Your task to perform on an android device: open app "Booking.com: Hotels and more" Image 0: 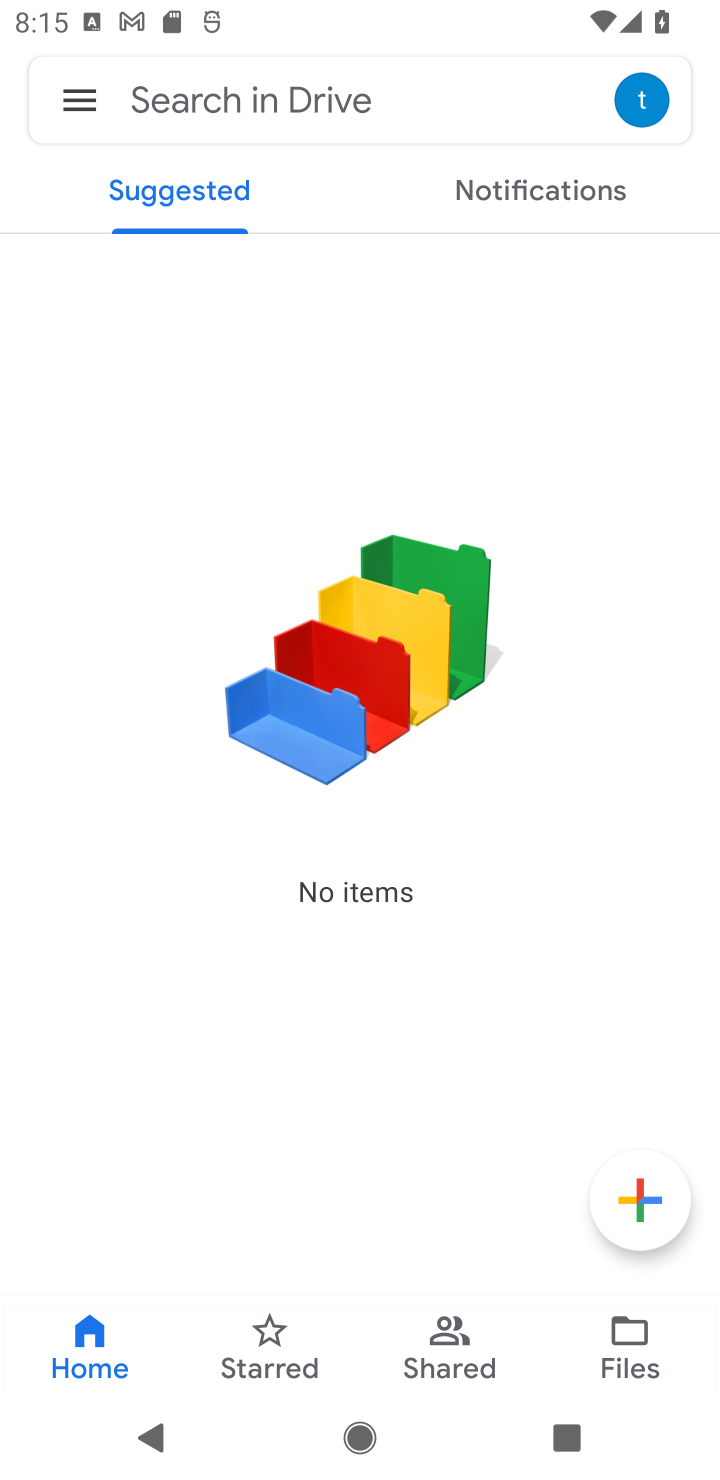
Step 0: press home button
Your task to perform on an android device: open app "Booking.com: Hotels and more" Image 1: 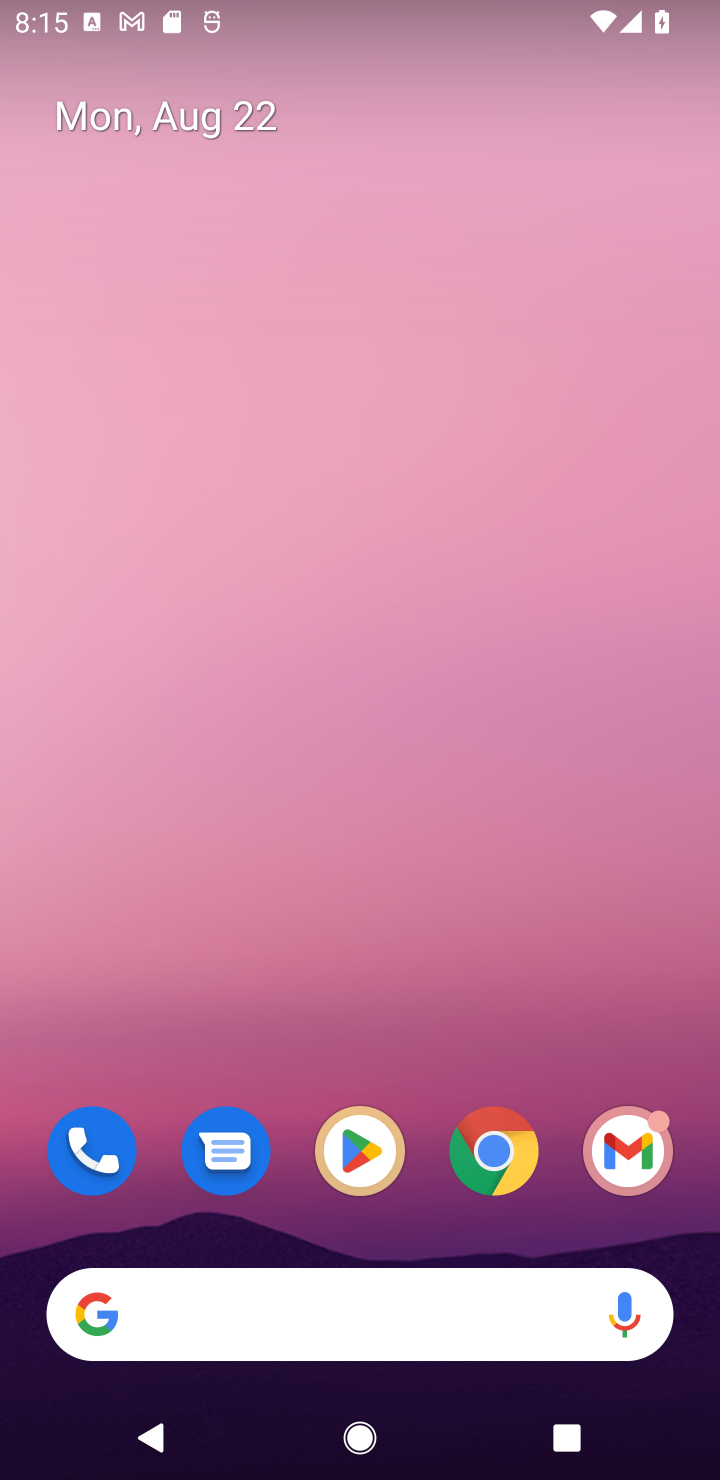
Step 1: click (348, 1147)
Your task to perform on an android device: open app "Booking.com: Hotels and more" Image 2: 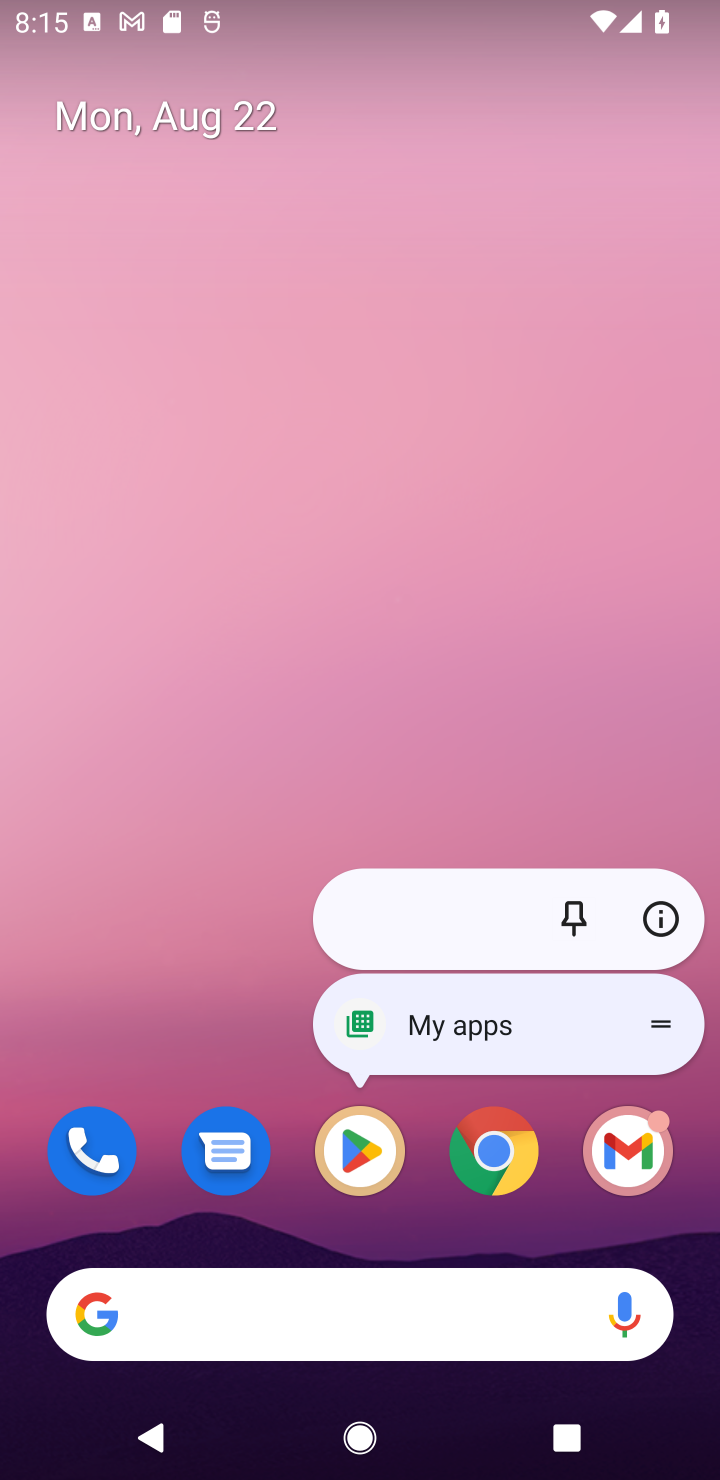
Step 2: click (348, 1156)
Your task to perform on an android device: open app "Booking.com: Hotels and more" Image 3: 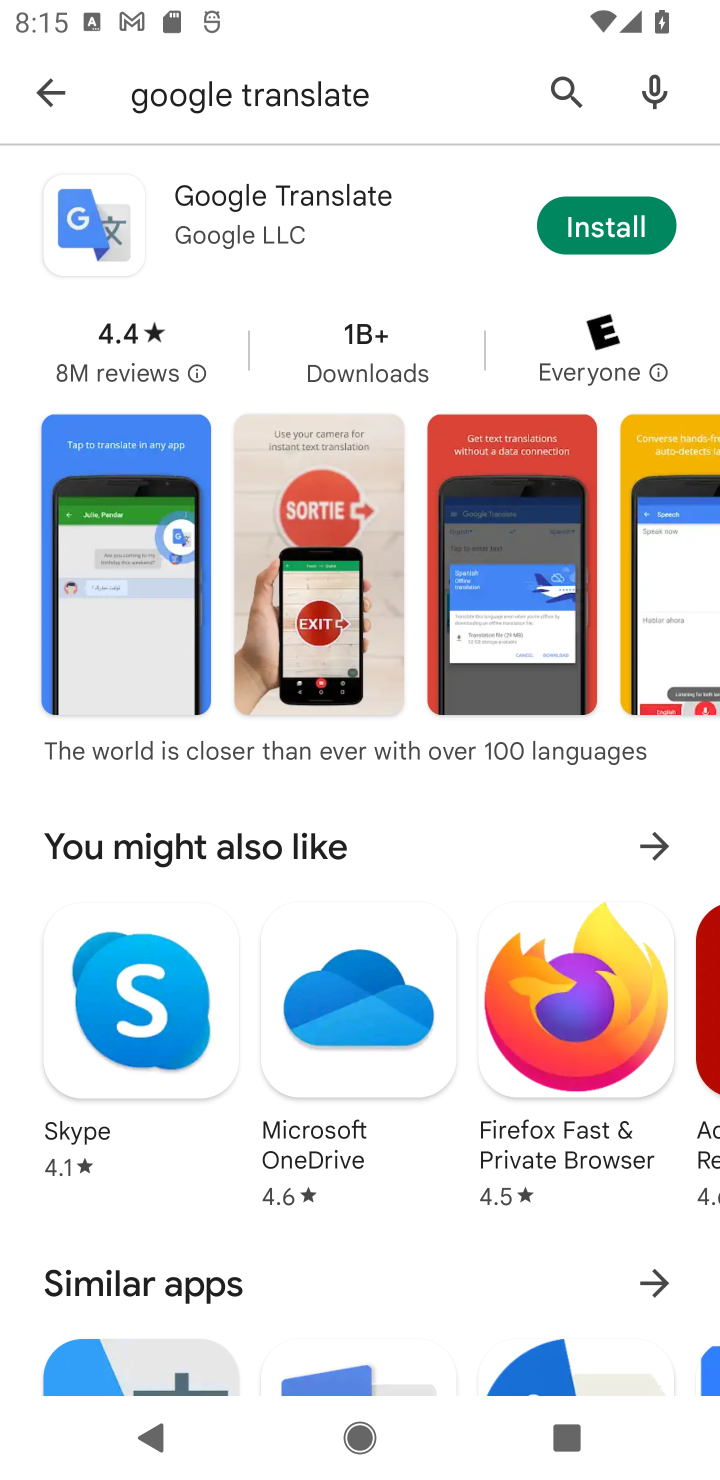
Step 3: click (559, 79)
Your task to perform on an android device: open app "Booking.com: Hotels and more" Image 4: 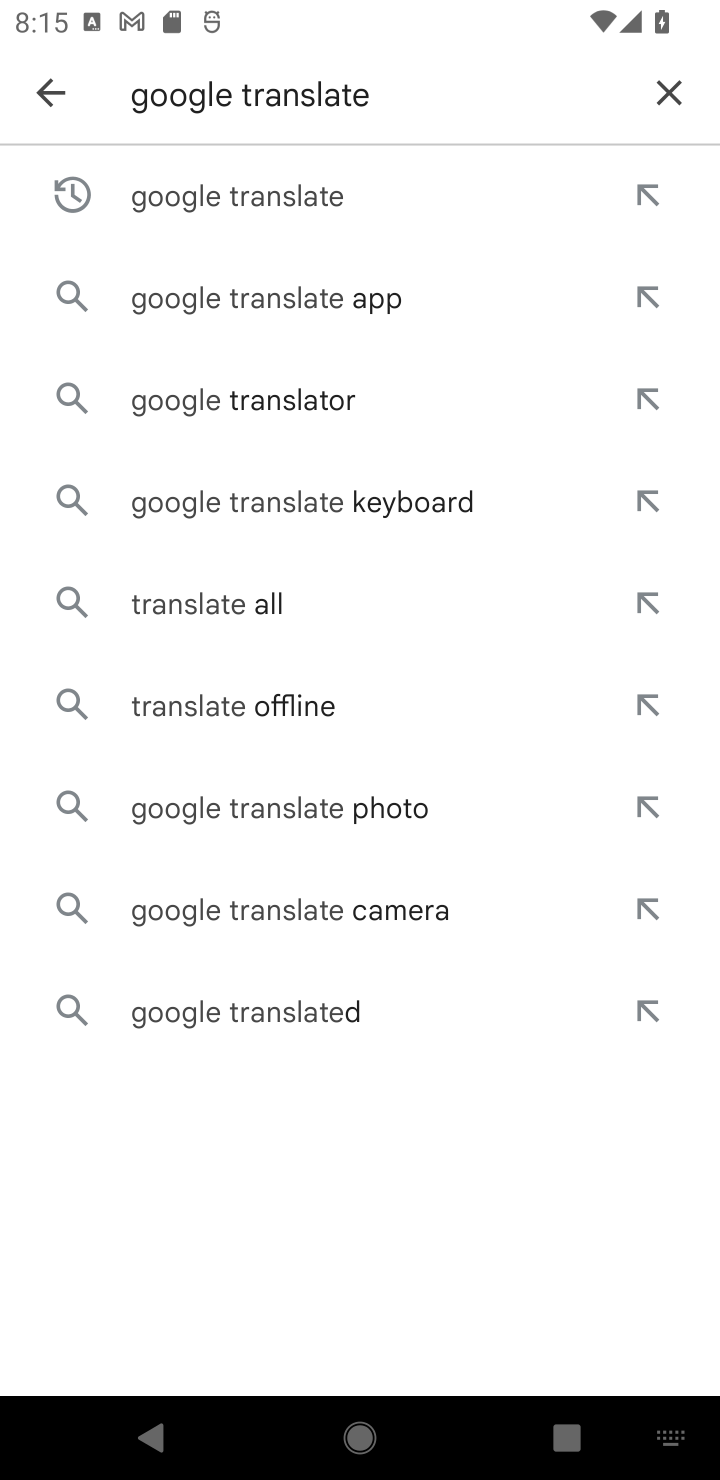
Step 4: click (679, 91)
Your task to perform on an android device: open app "Booking.com: Hotels and more" Image 5: 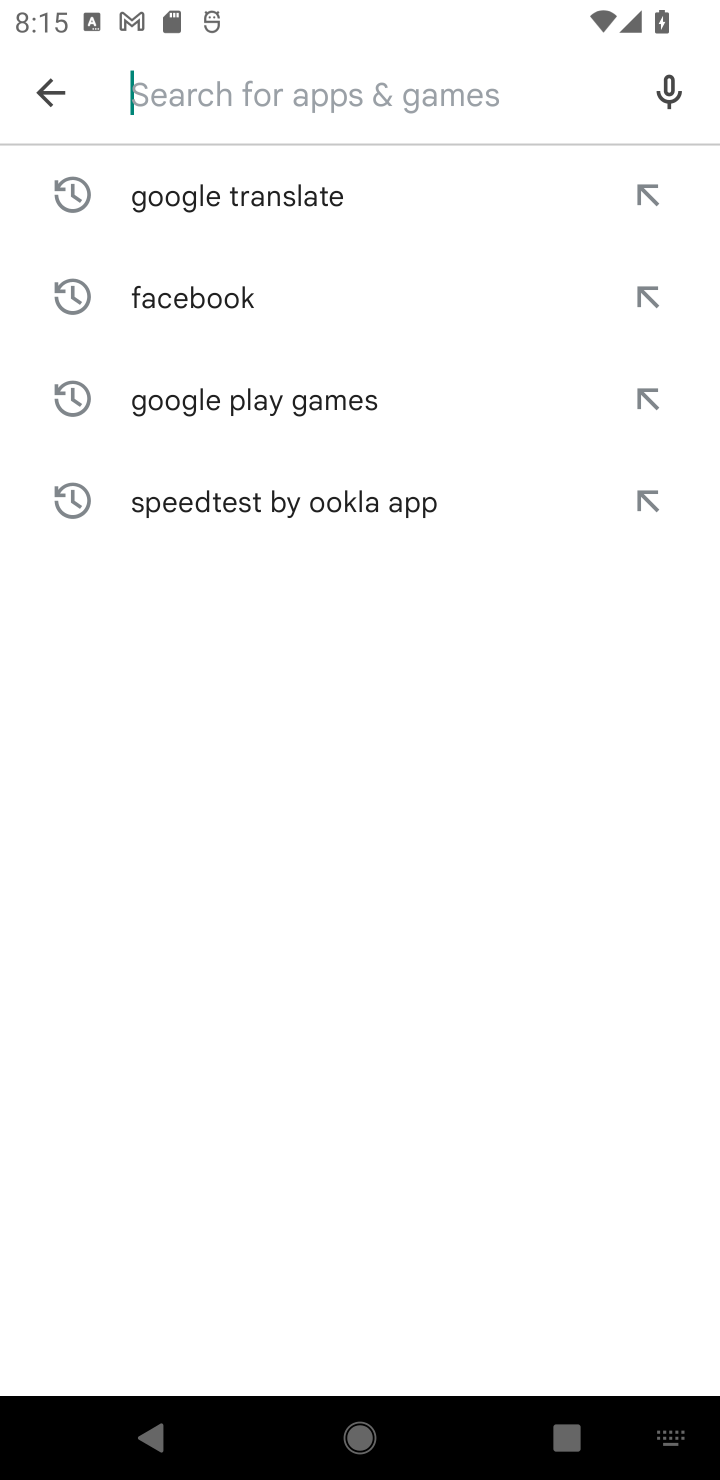
Step 5: type "Booking.com: Hotels and more"
Your task to perform on an android device: open app "Booking.com: Hotels and more" Image 6: 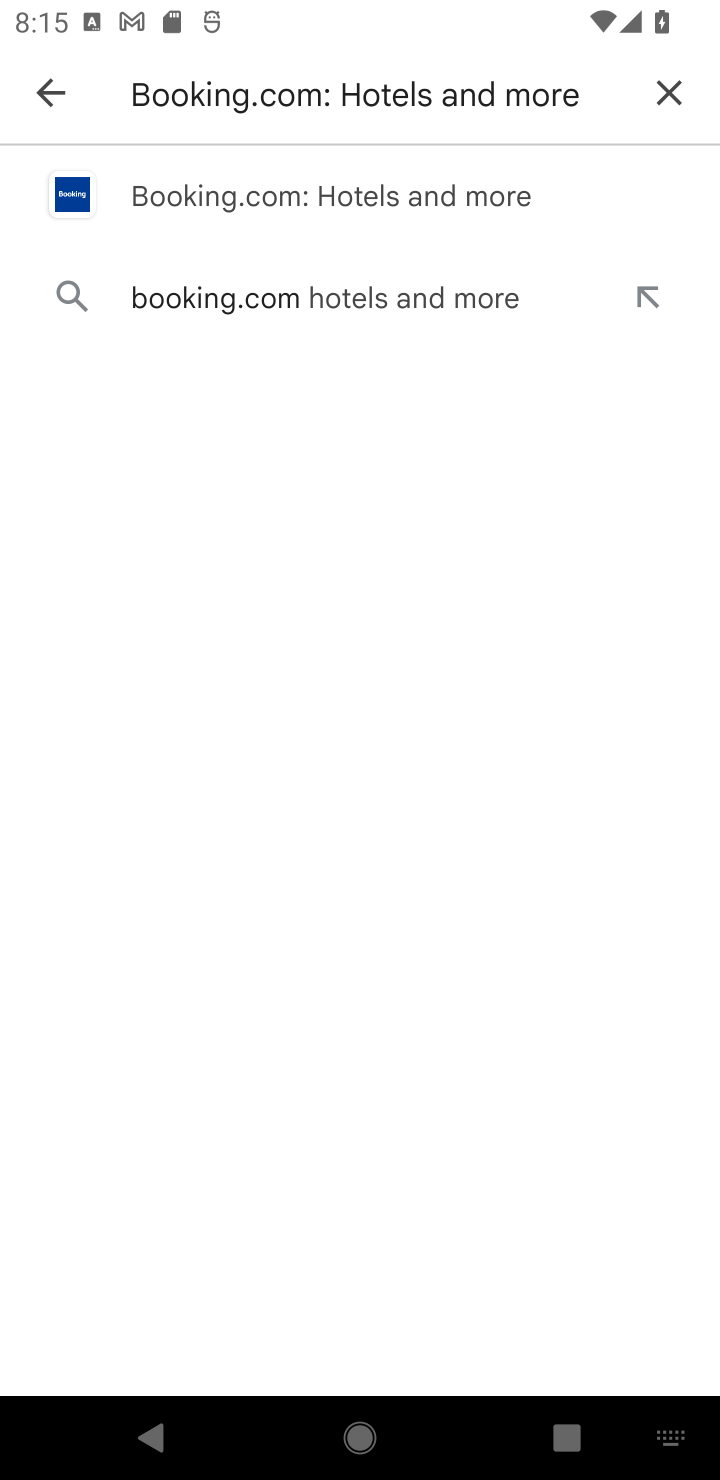
Step 6: click (309, 178)
Your task to perform on an android device: open app "Booking.com: Hotels and more" Image 7: 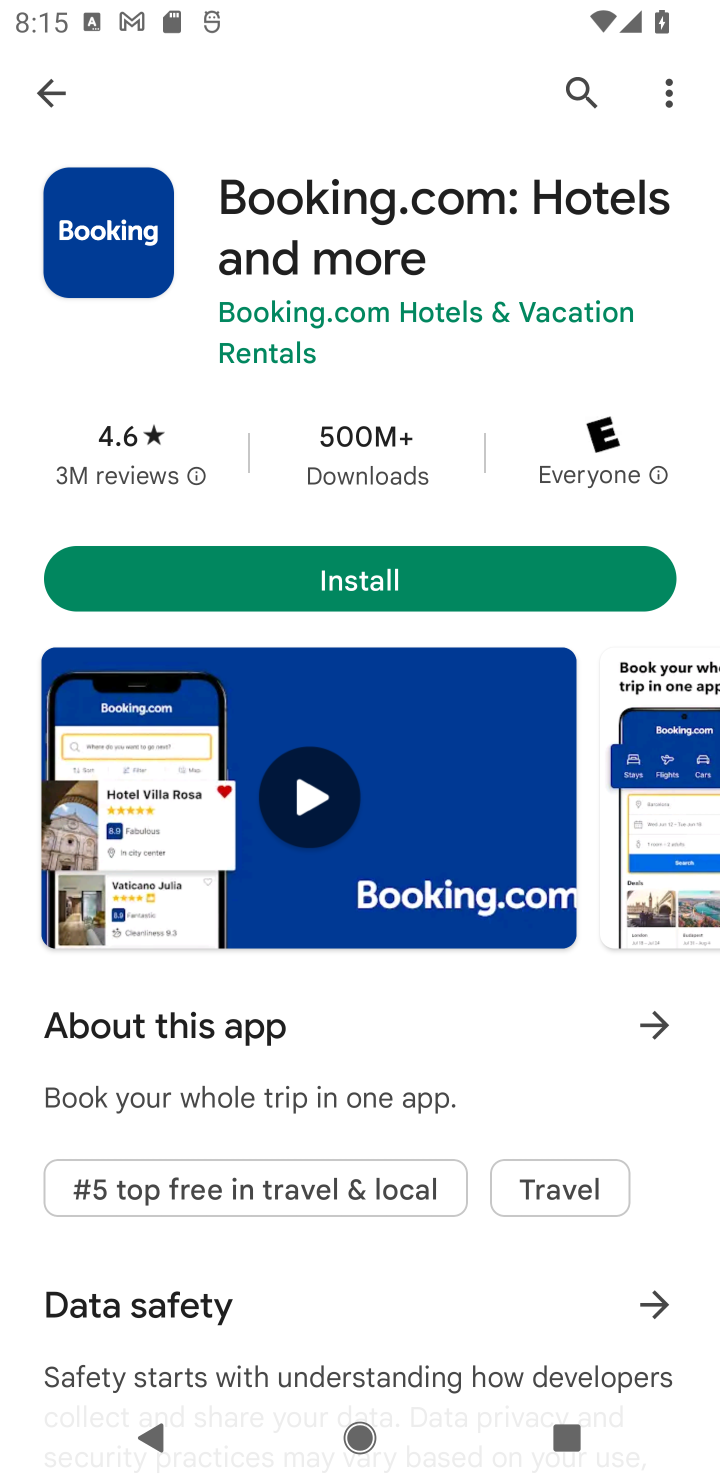
Step 7: task complete